Your task to perform on an android device: open app "Roku - Official Remote Control" (install if not already installed), go to login, and select forgot password Image 0: 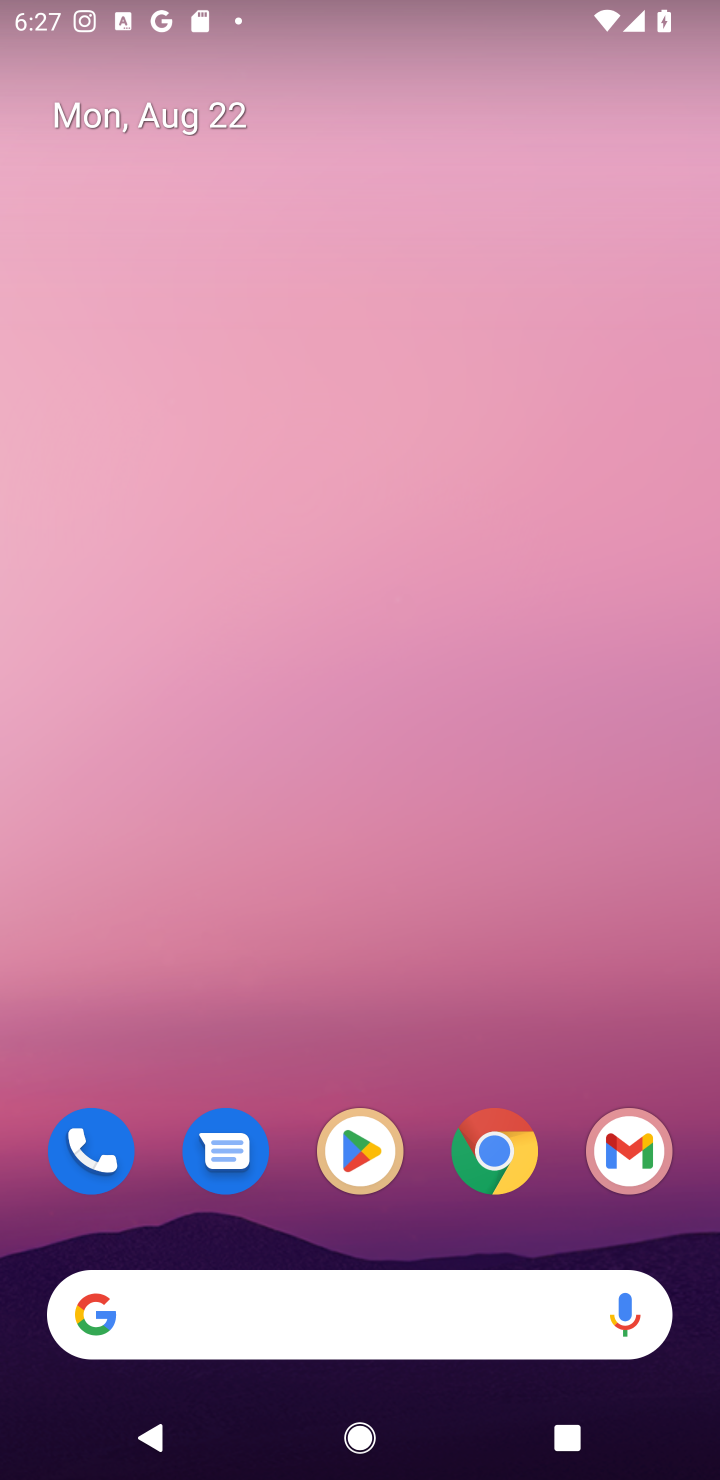
Step 0: click (356, 1162)
Your task to perform on an android device: open app "Roku - Official Remote Control" (install if not already installed), go to login, and select forgot password Image 1: 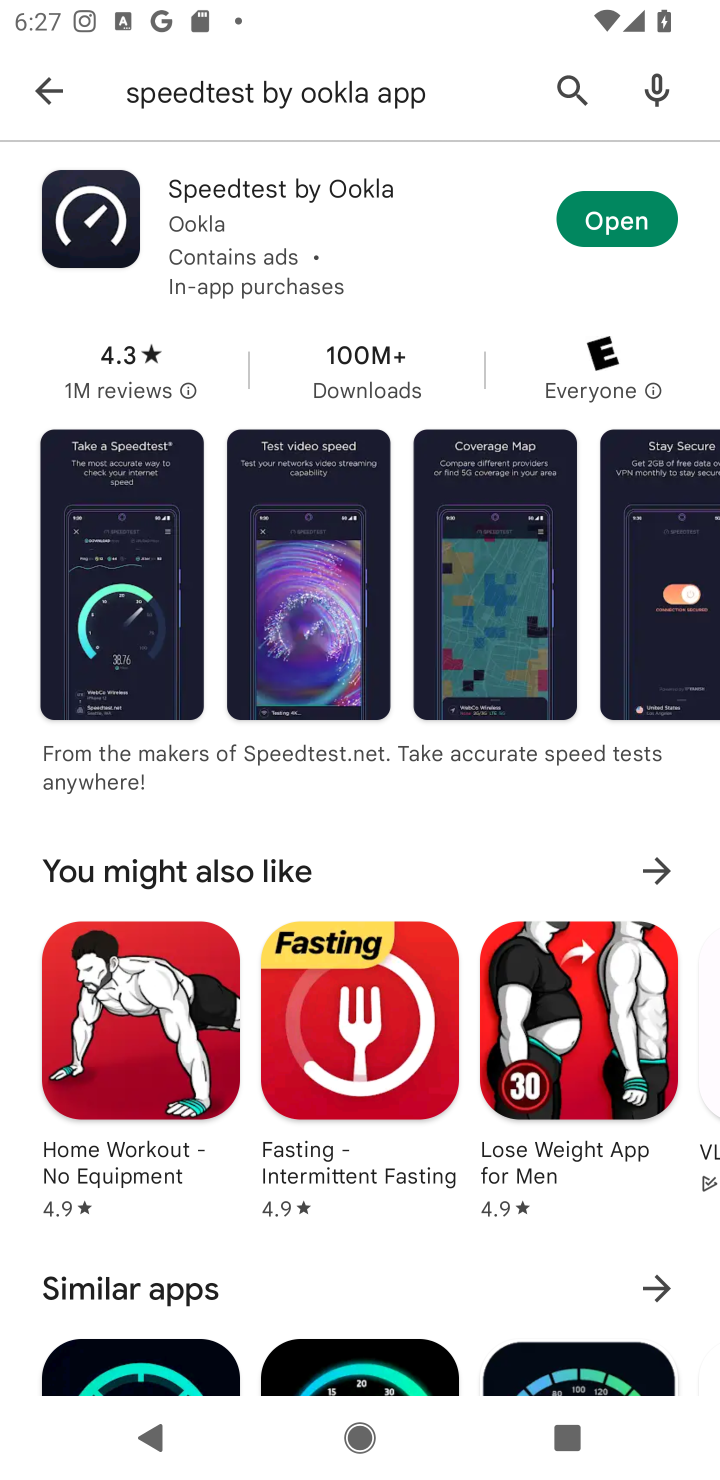
Step 1: click (572, 95)
Your task to perform on an android device: open app "Roku - Official Remote Control" (install if not already installed), go to login, and select forgot password Image 2: 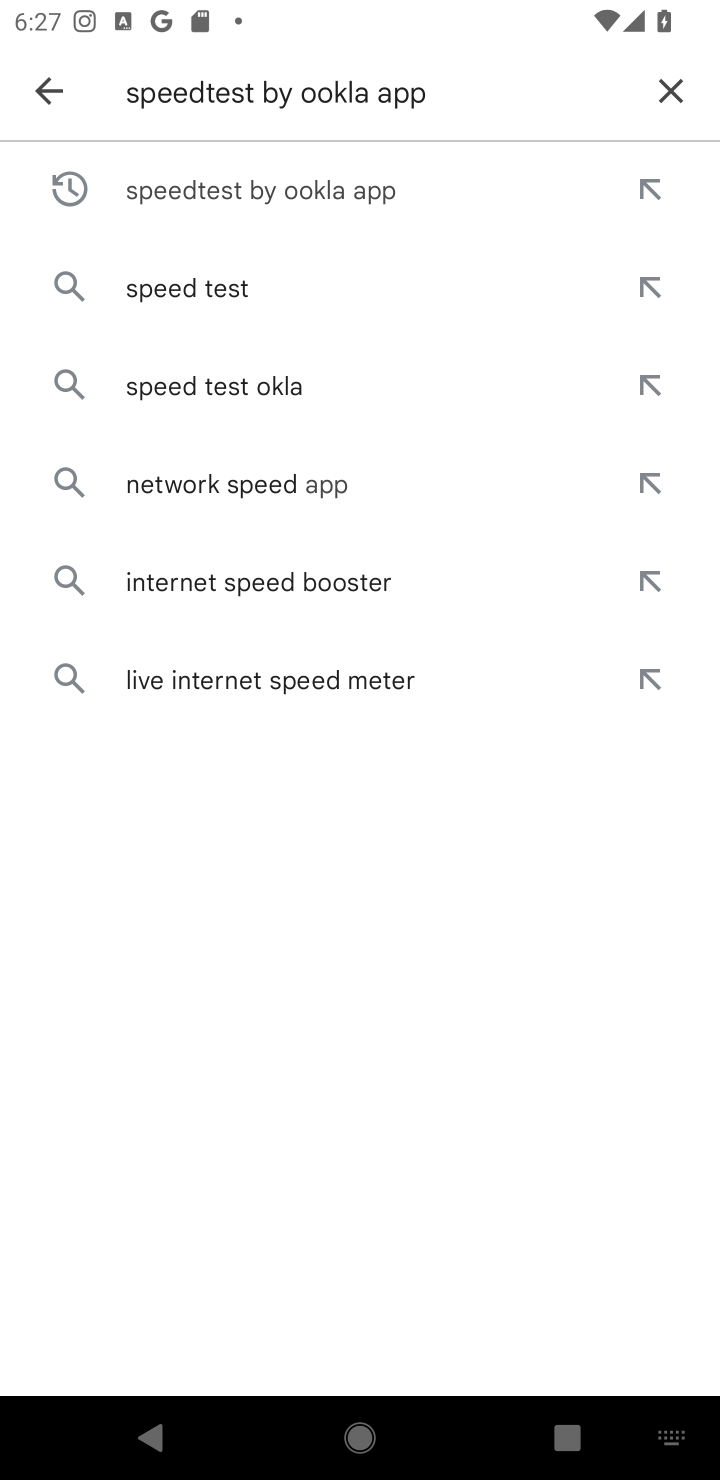
Step 2: click (668, 84)
Your task to perform on an android device: open app "Roku - Official Remote Control" (install if not already installed), go to login, and select forgot password Image 3: 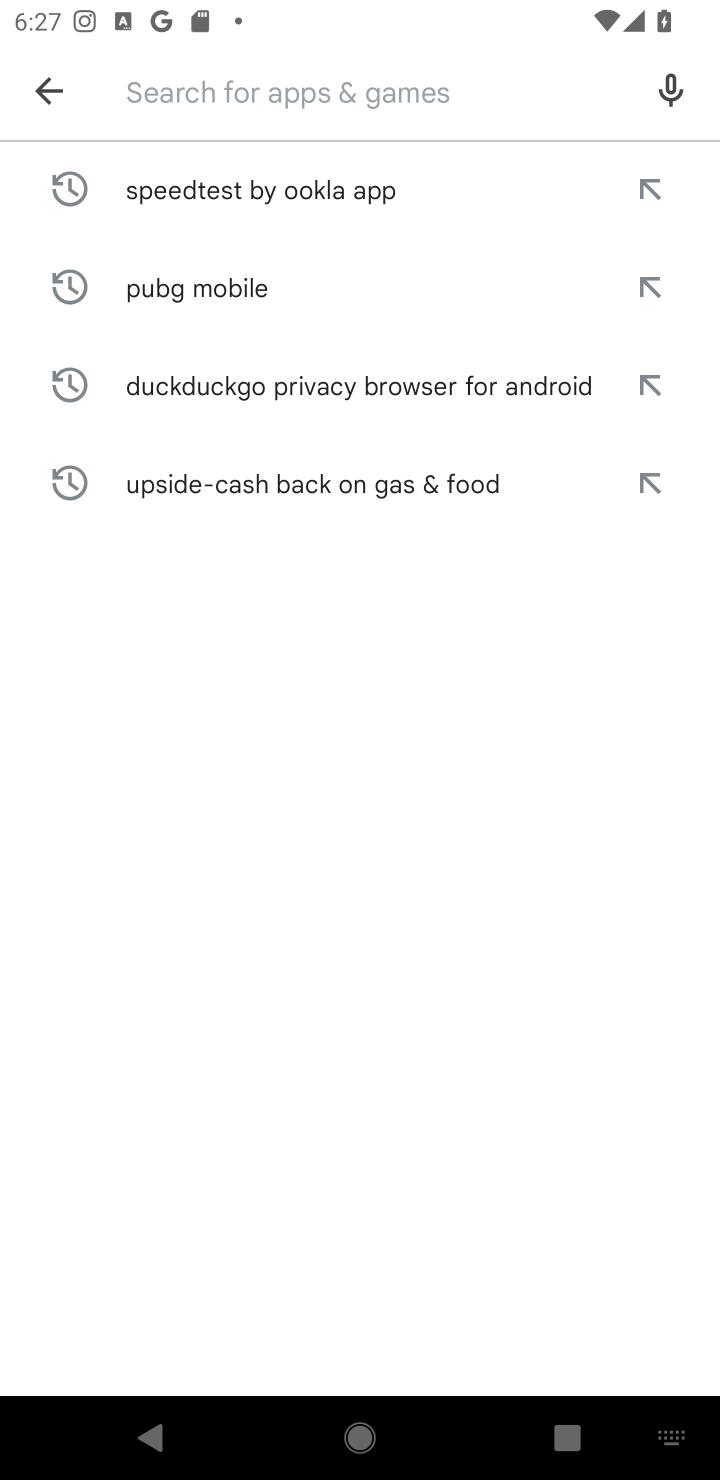
Step 3: type "Roku - Official Remote Control"
Your task to perform on an android device: open app "Roku - Official Remote Control" (install if not already installed), go to login, and select forgot password Image 4: 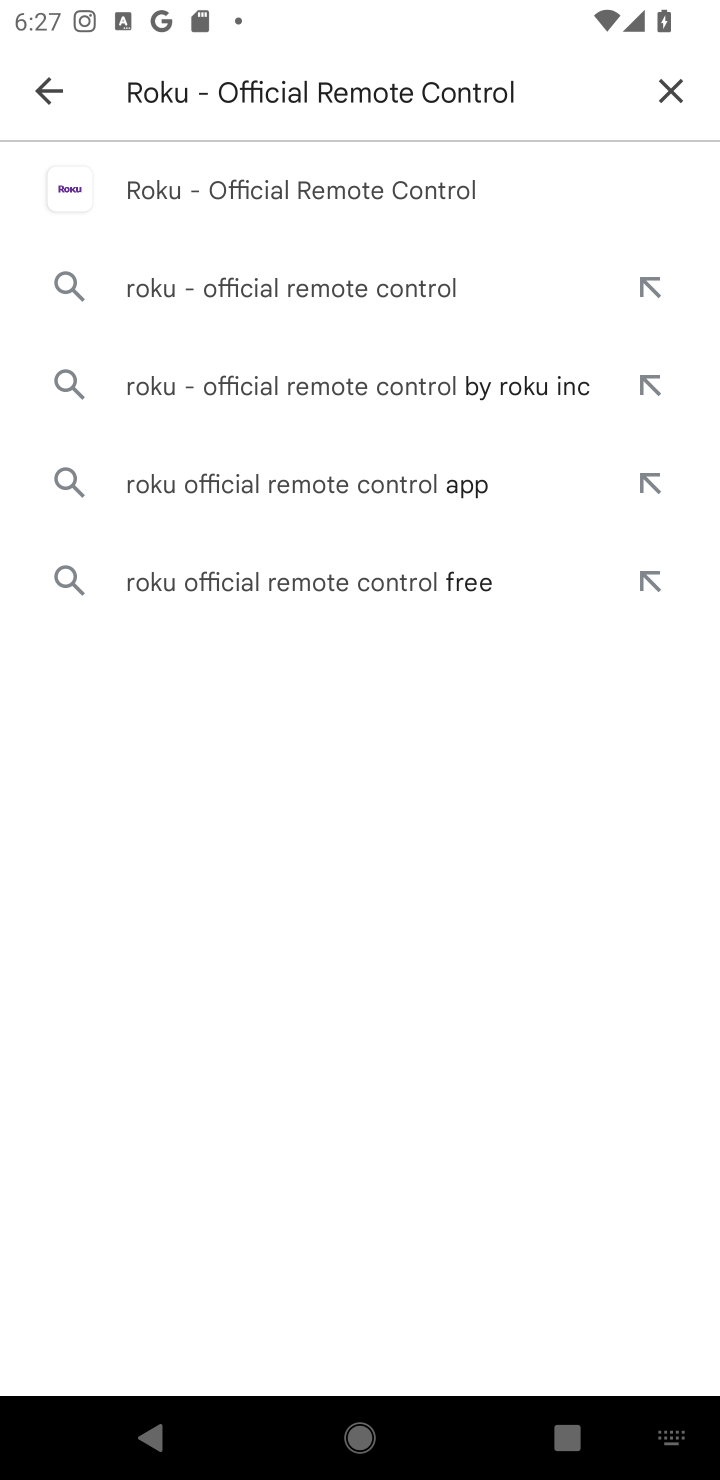
Step 4: click (323, 178)
Your task to perform on an android device: open app "Roku - Official Remote Control" (install if not already installed), go to login, and select forgot password Image 5: 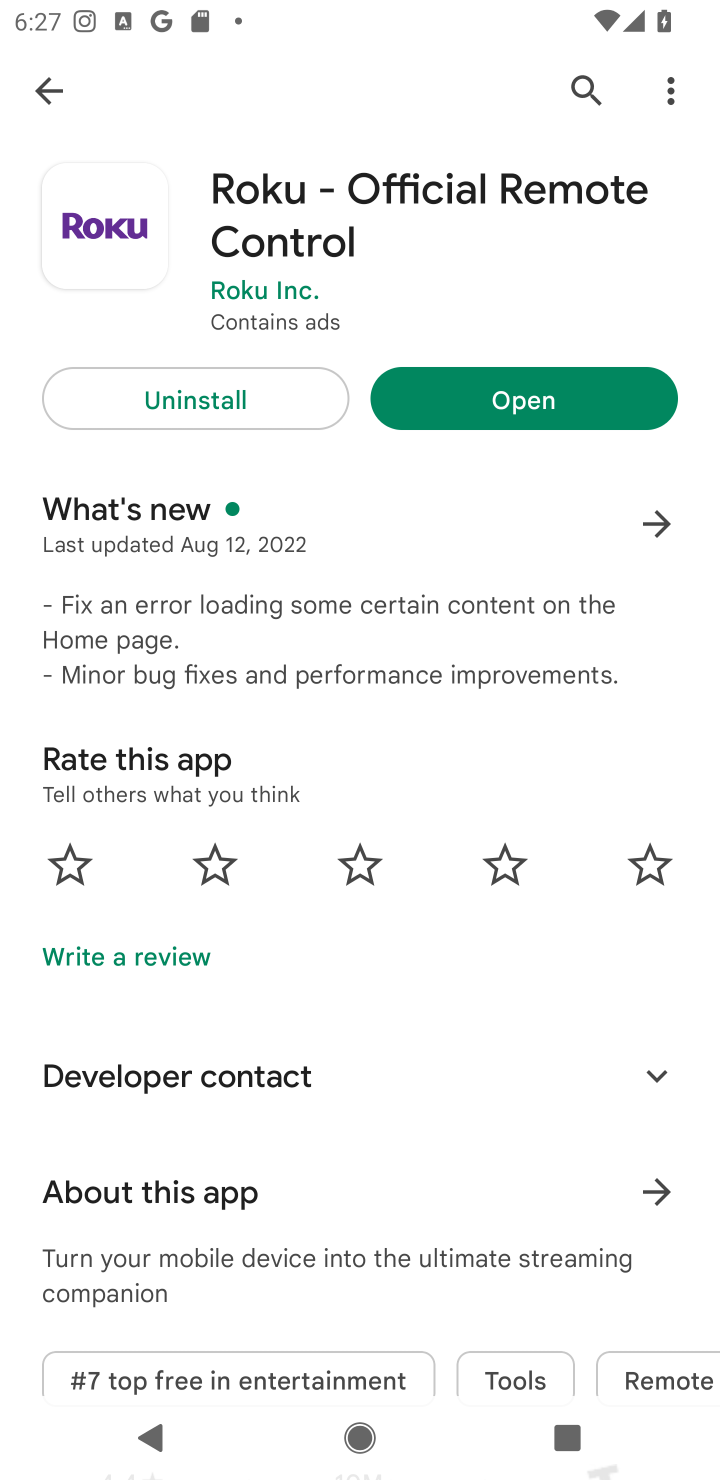
Step 5: click (526, 404)
Your task to perform on an android device: open app "Roku - Official Remote Control" (install if not already installed), go to login, and select forgot password Image 6: 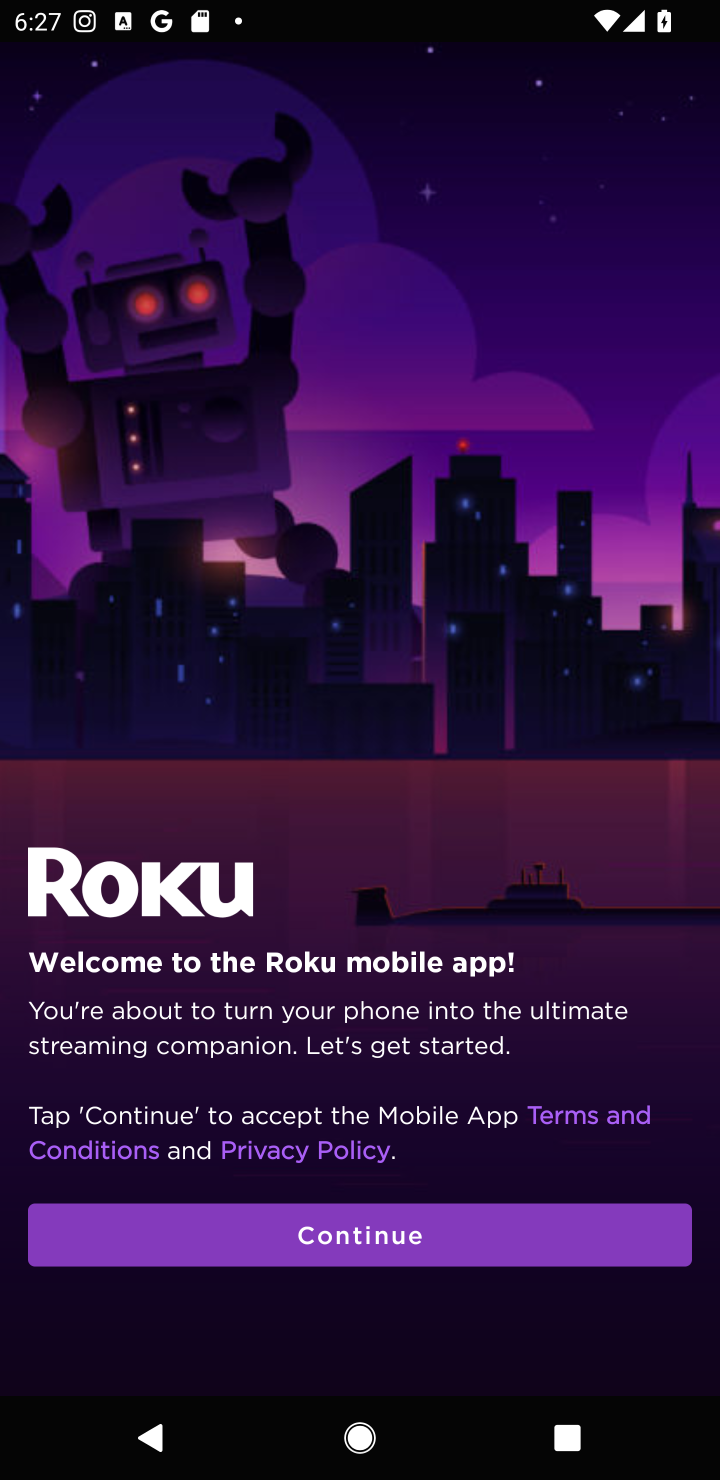
Step 6: click (351, 1247)
Your task to perform on an android device: open app "Roku - Official Remote Control" (install if not already installed), go to login, and select forgot password Image 7: 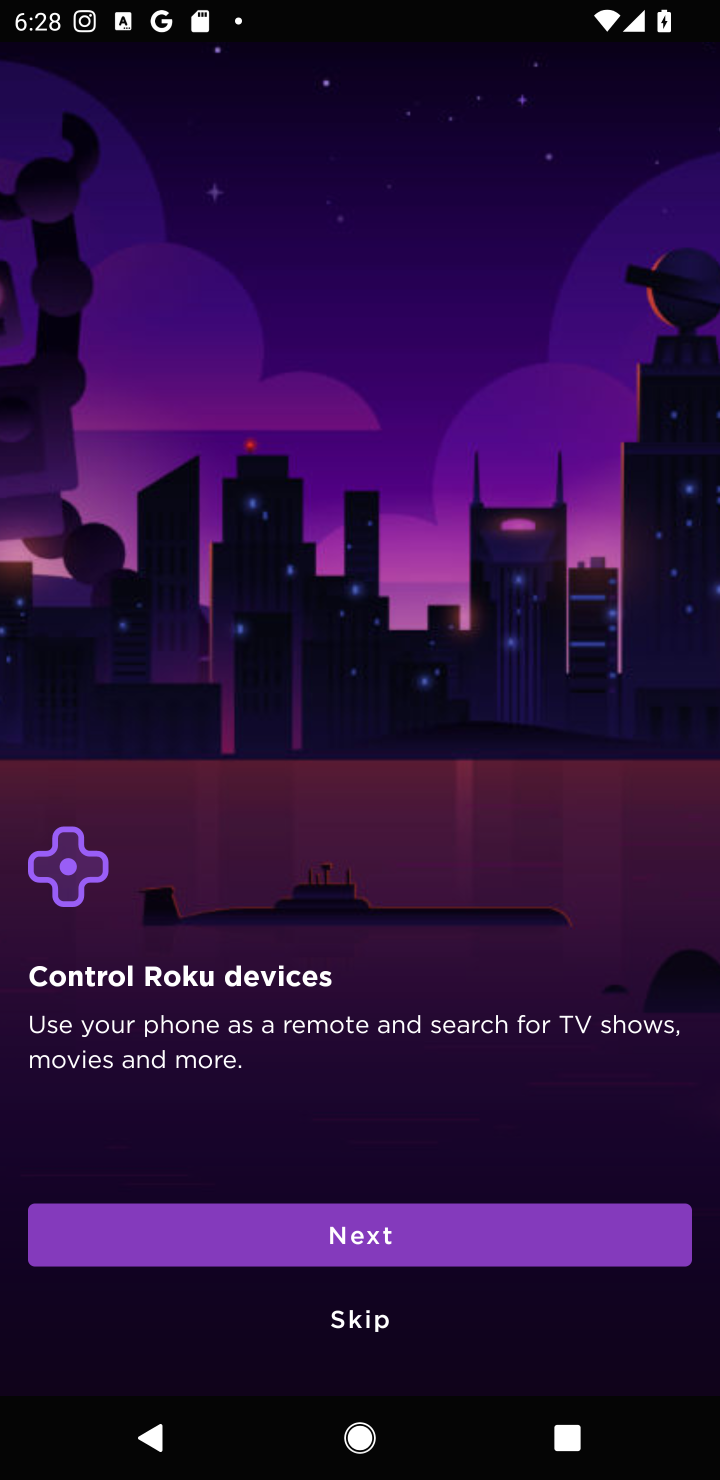
Step 7: click (370, 1228)
Your task to perform on an android device: open app "Roku - Official Remote Control" (install if not already installed), go to login, and select forgot password Image 8: 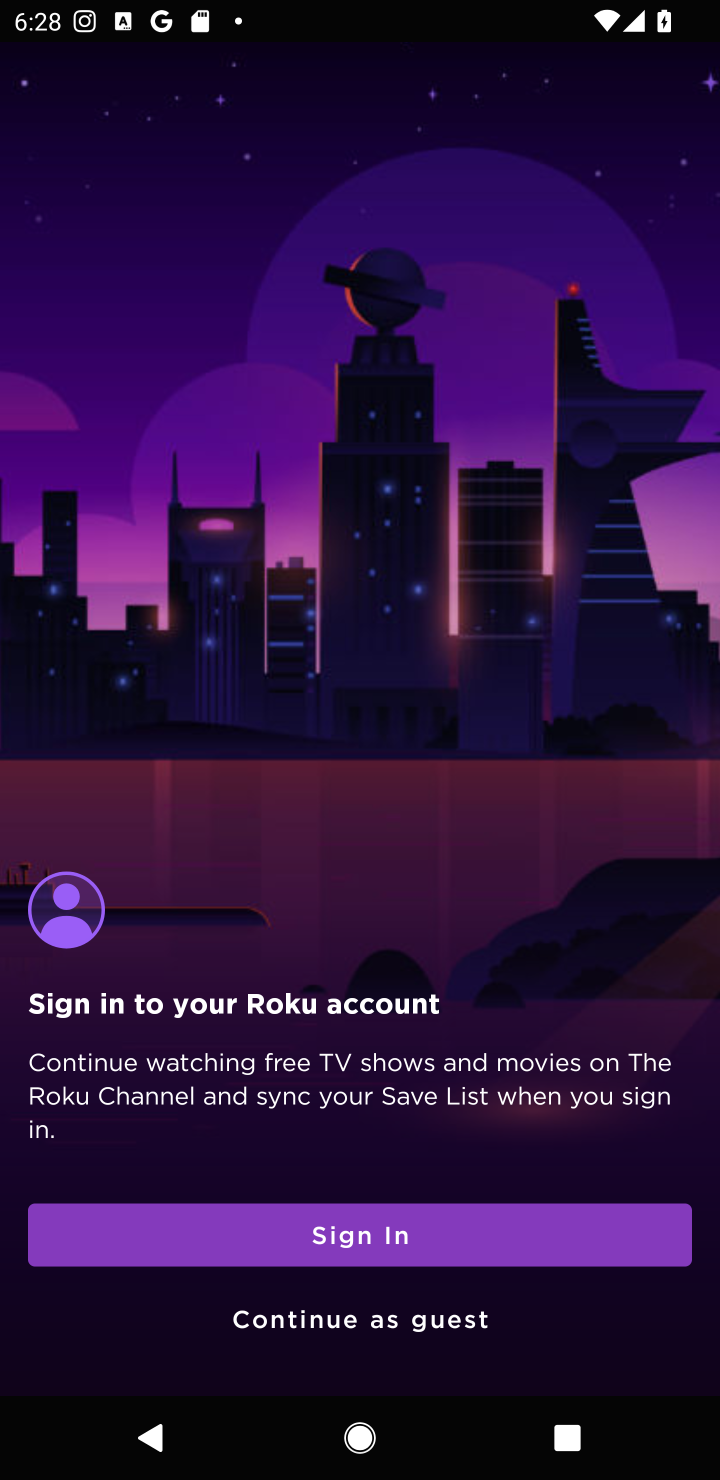
Step 8: click (397, 1247)
Your task to perform on an android device: open app "Roku - Official Remote Control" (install if not already installed), go to login, and select forgot password Image 9: 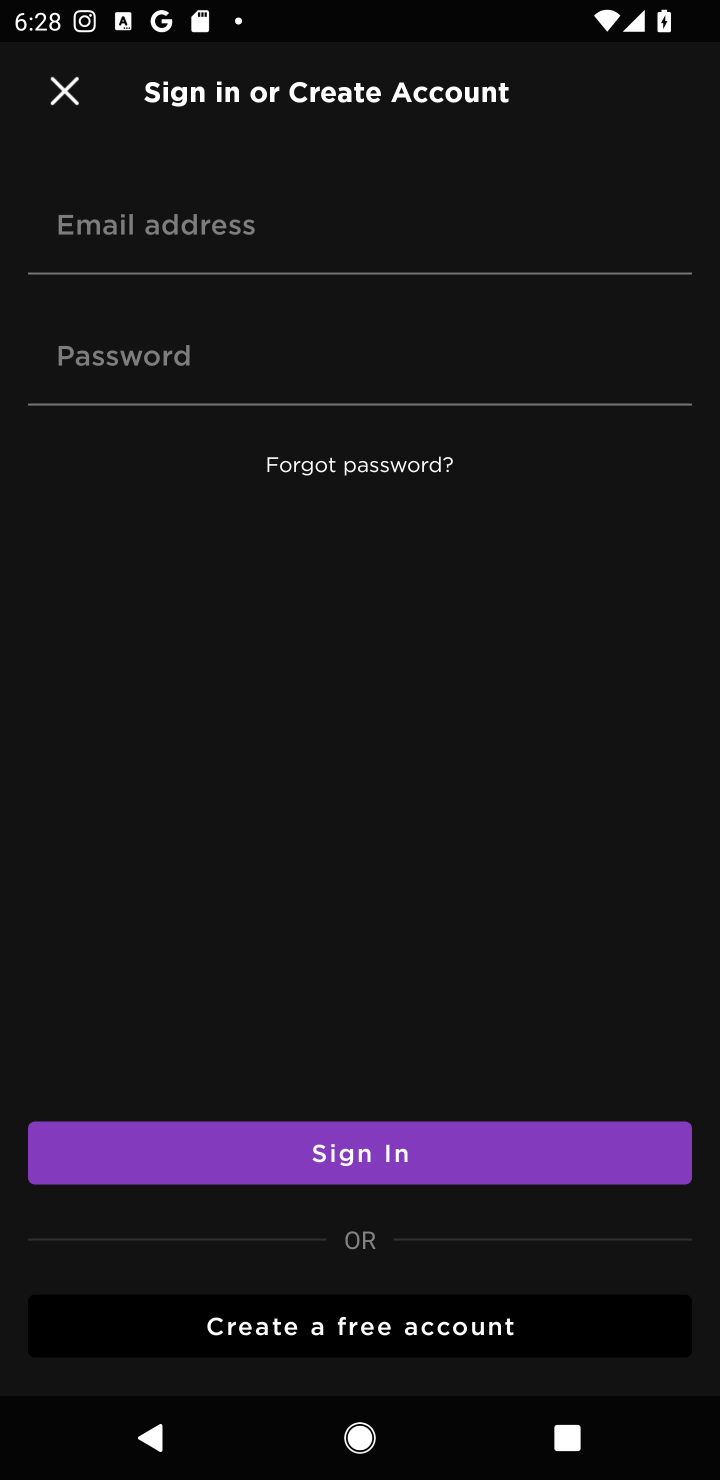
Step 9: task complete